Your task to perform on an android device: Turn on the flashlight Image 0: 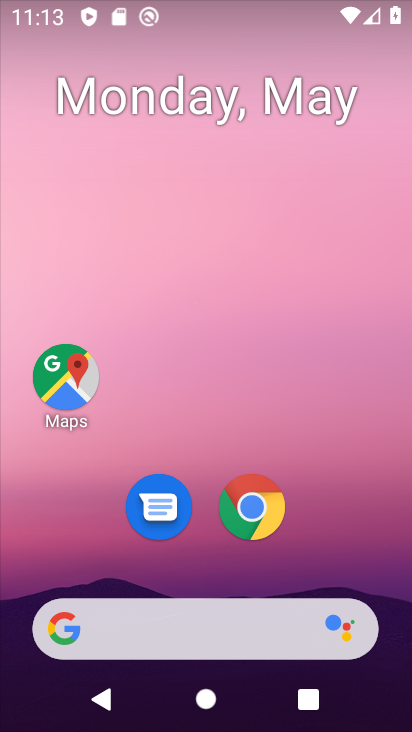
Step 0: drag from (309, 555) to (309, 379)
Your task to perform on an android device: Turn on the flashlight Image 1: 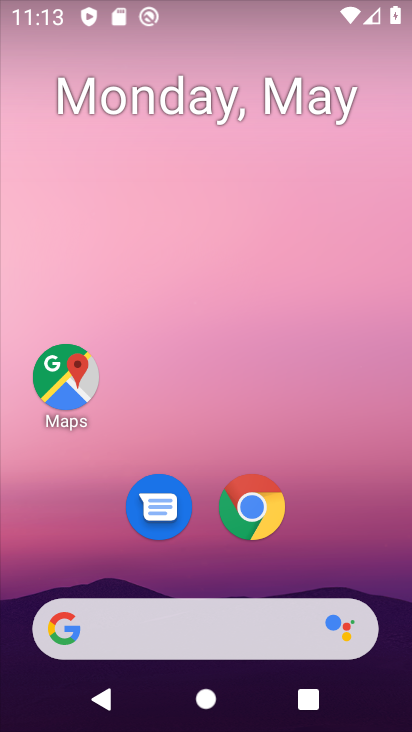
Step 1: drag from (345, 559) to (354, 250)
Your task to perform on an android device: Turn on the flashlight Image 2: 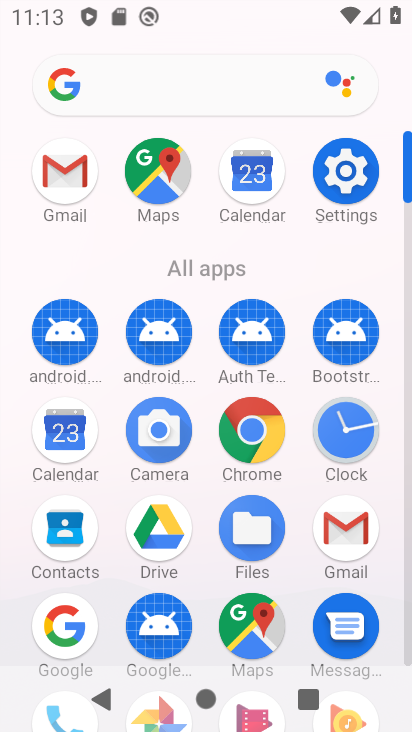
Step 2: click (322, 168)
Your task to perform on an android device: Turn on the flashlight Image 3: 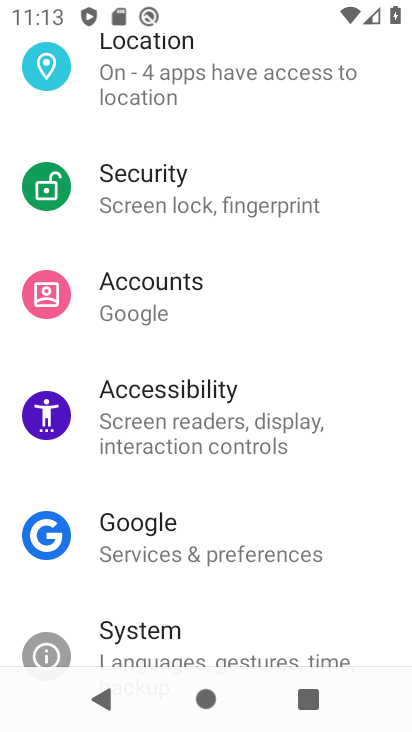
Step 3: task complete